Your task to perform on an android device: turn vacation reply on in the gmail app Image 0: 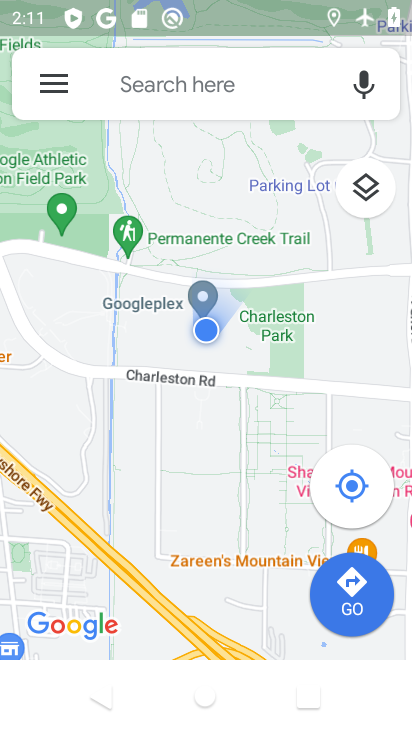
Step 0: press back button
Your task to perform on an android device: turn vacation reply on in the gmail app Image 1: 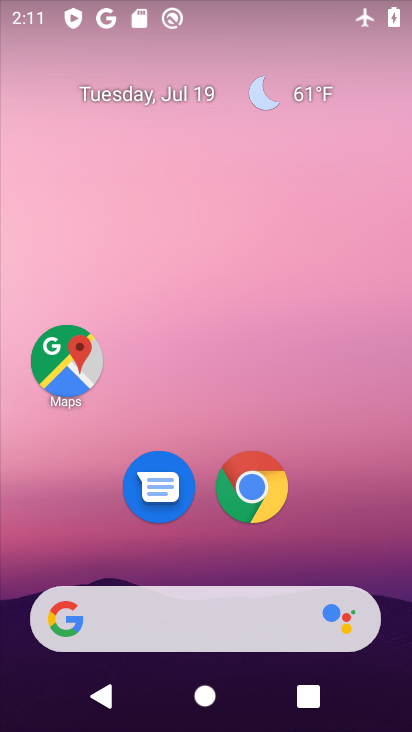
Step 1: drag from (205, 556) to (292, 4)
Your task to perform on an android device: turn vacation reply on in the gmail app Image 2: 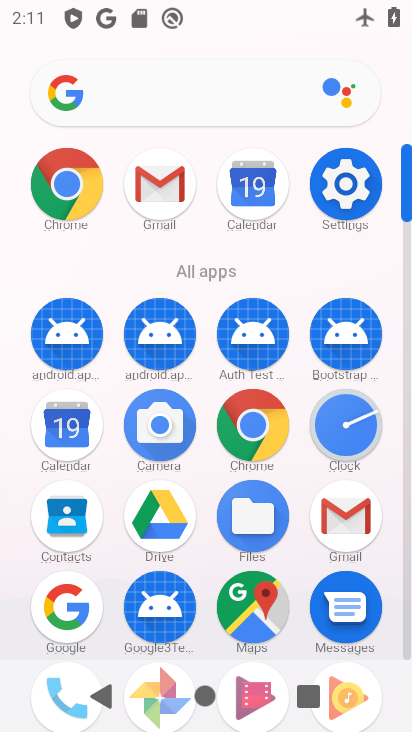
Step 2: click (171, 174)
Your task to perform on an android device: turn vacation reply on in the gmail app Image 3: 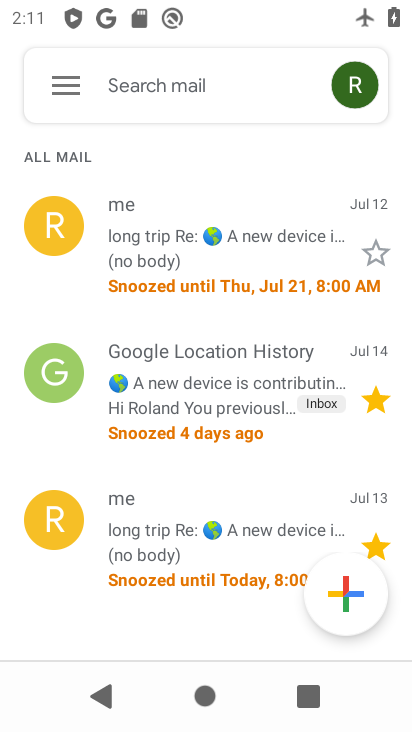
Step 3: click (57, 71)
Your task to perform on an android device: turn vacation reply on in the gmail app Image 4: 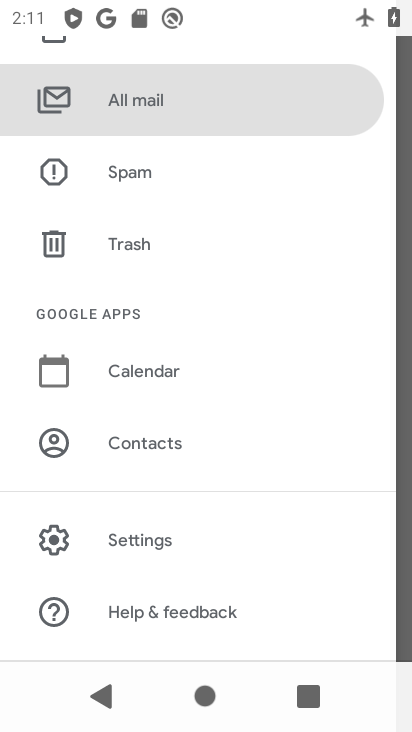
Step 4: click (132, 545)
Your task to perform on an android device: turn vacation reply on in the gmail app Image 5: 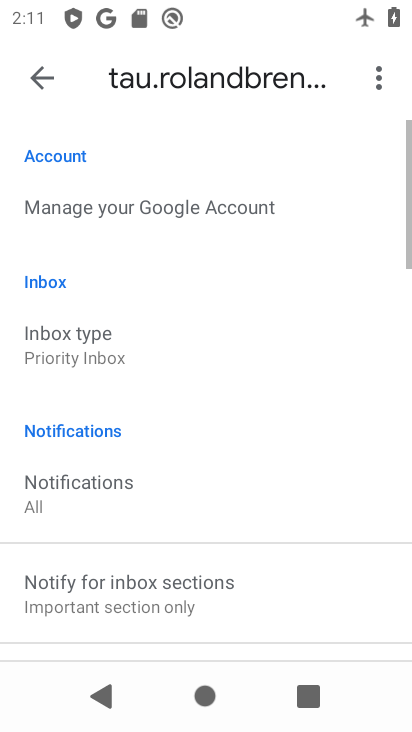
Step 5: drag from (132, 545) to (278, 15)
Your task to perform on an android device: turn vacation reply on in the gmail app Image 6: 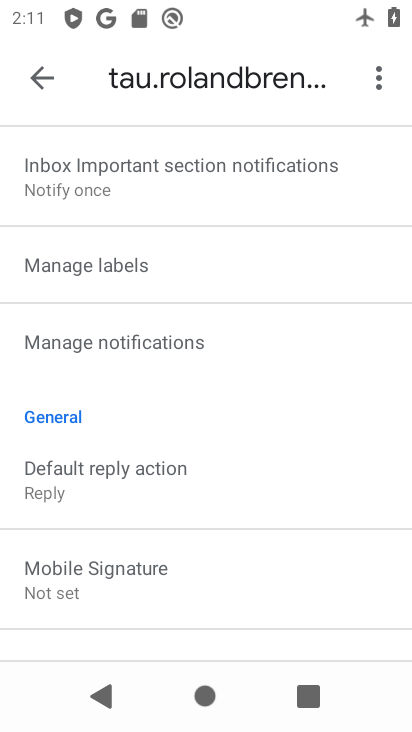
Step 6: drag from (177, 550) to (287, 58)
Your task to perform on an android device: turn vacation reply on in the gmail app Image 7: 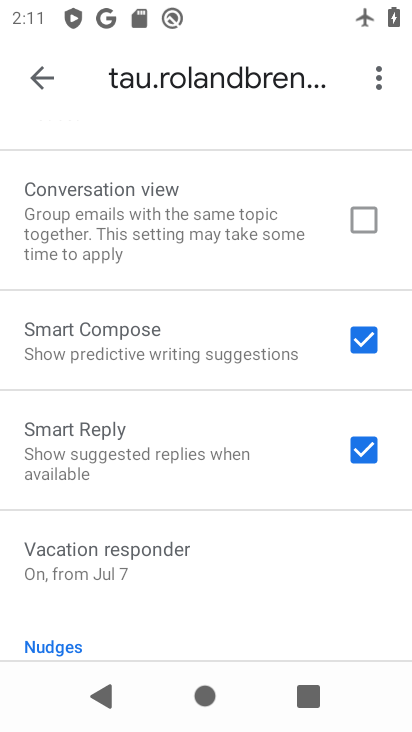
Step 7: click (151, 547)
Your task to perform on an android device: turn vacation reply on in the gmail app Image 8: 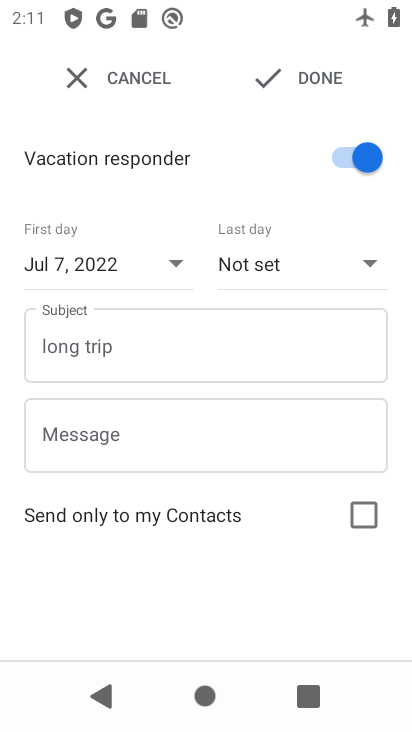
Step 8: task complete